Your task to perform on an android device: Go to Maps Image 0: 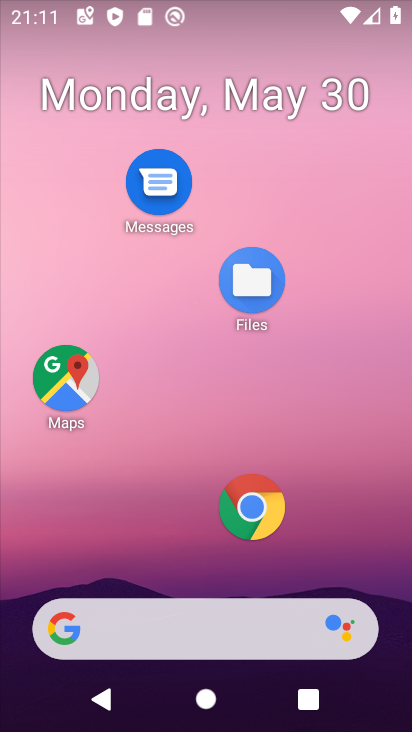
Step 0: click (58, 370)
Your task to perform on an android device: Go to Maps Image 1: 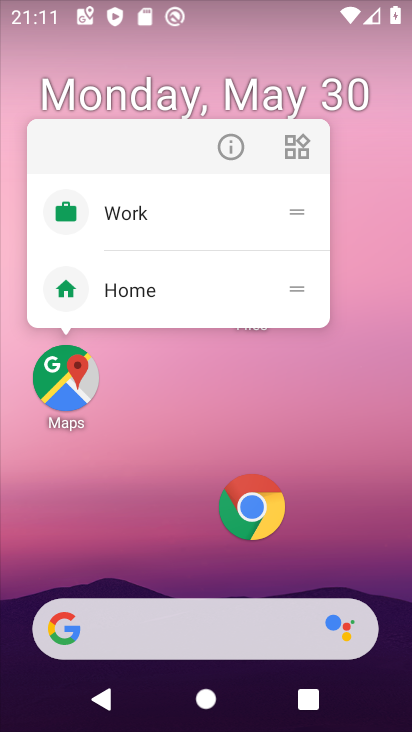
Step 1: click (79, 364)
Your task to perform on an android device: Go to Maps Image 2: 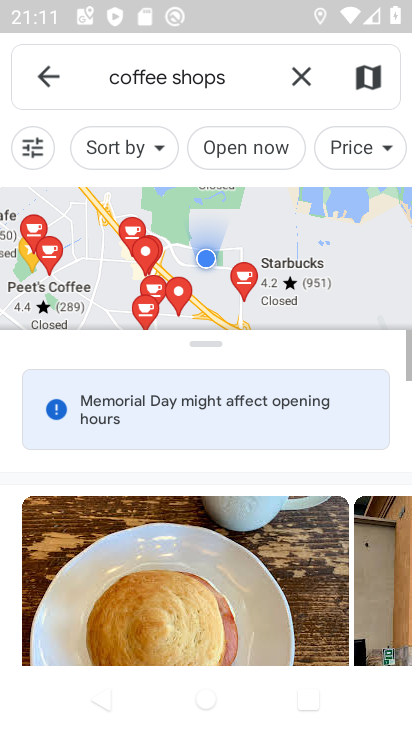
Step 2: click (53, 68)
Your task to perform on an android device: Go to Maps Image 3: 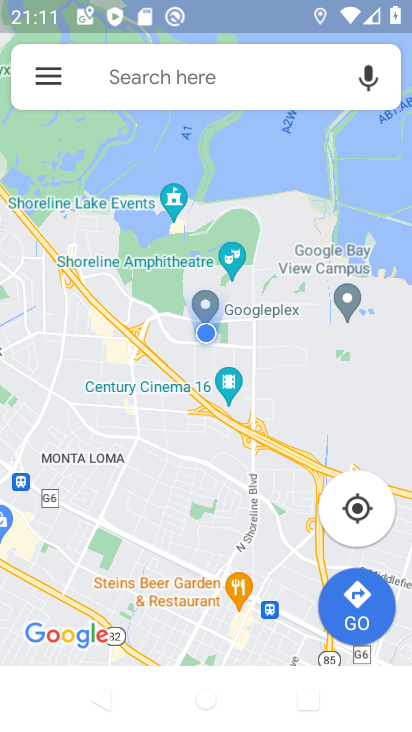
Step 3: task complete